Your task to perform on an android device: change the clock display to show seconds Image 0: 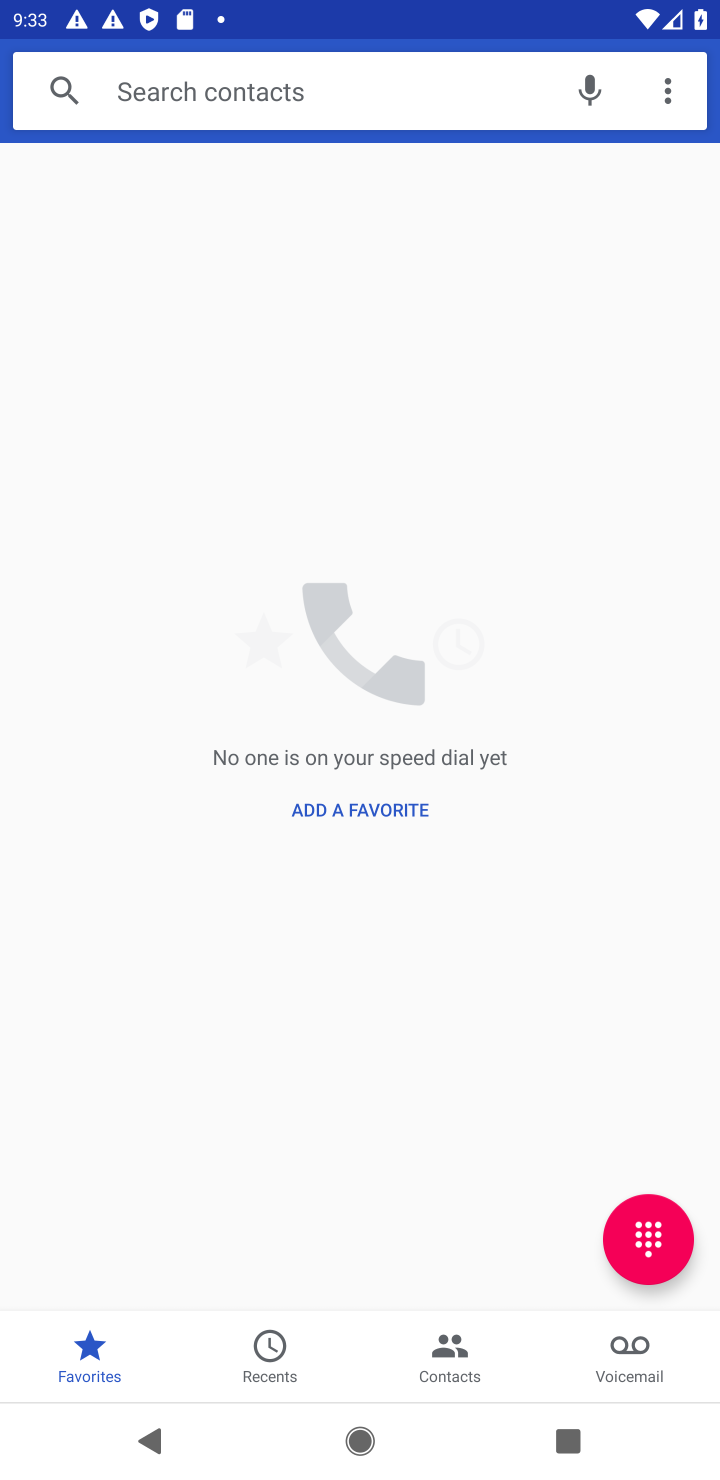
Step 0: press home button
Your task to perform on an android device: change the clock display to show seconds Image 1: 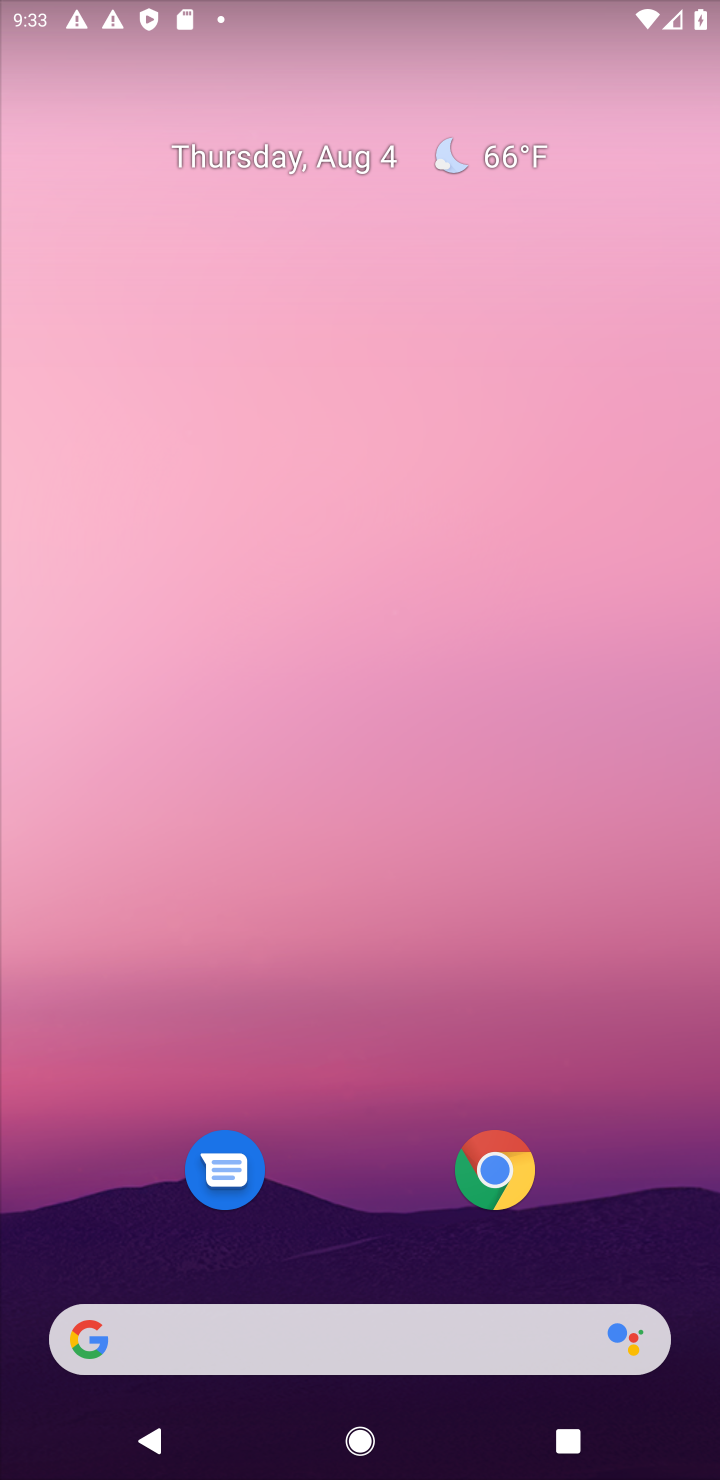
Step 1: drag from (267, 1233) to (243, 206)
Your task to perform on an android device: change the clock display to show seconds Image 2: 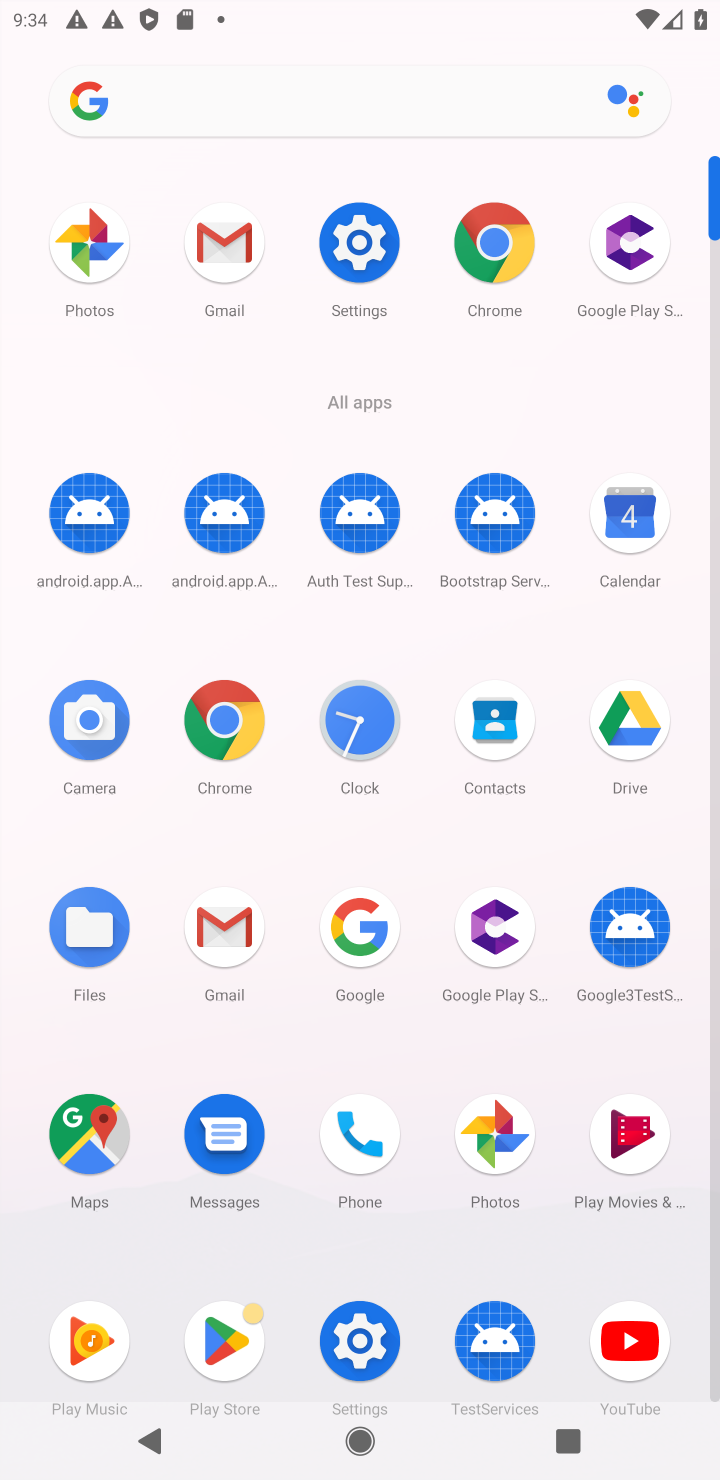
Step 2: click (334, 257)
Your task to perform on an android device: change the clock display to show seconds Image 3: 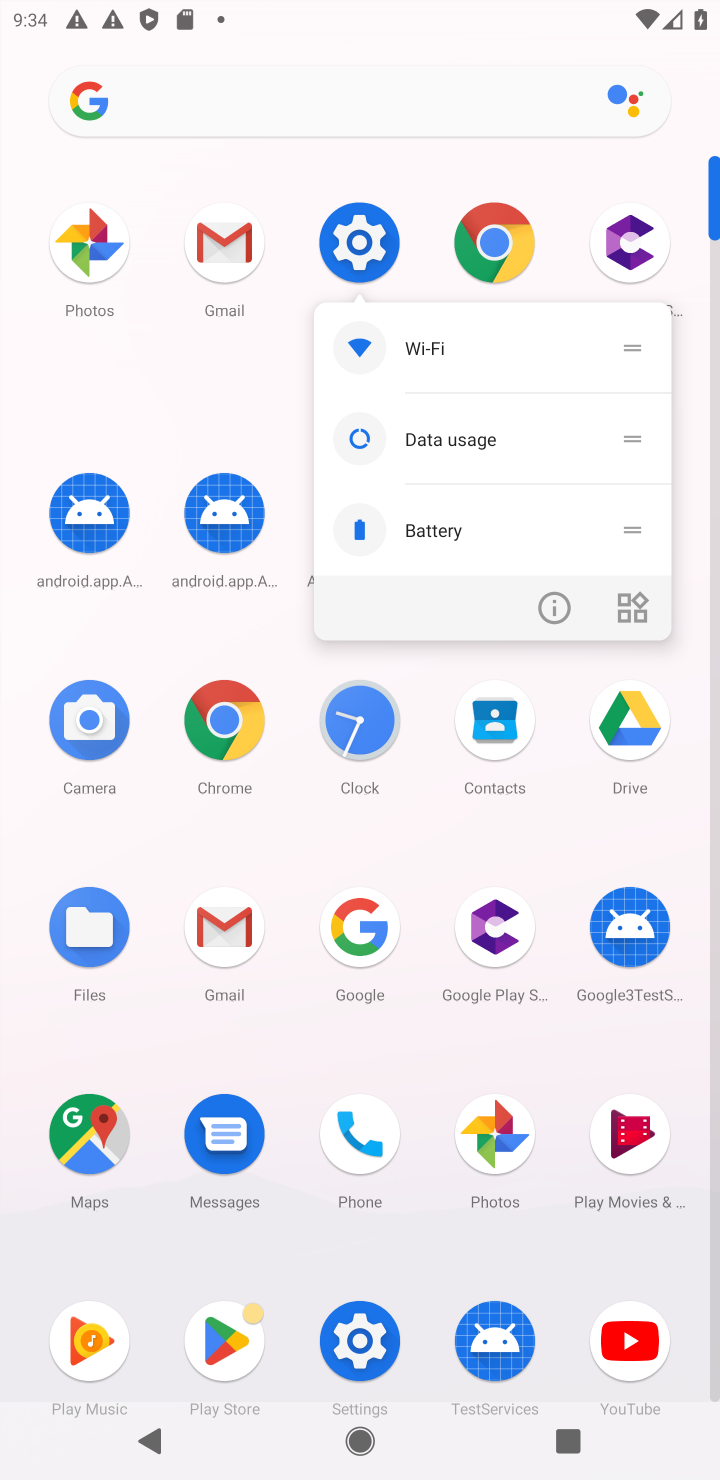
Step 3: click (332, 252)
Your task to perform on an android device: change the clock display to show seconds Image 4: 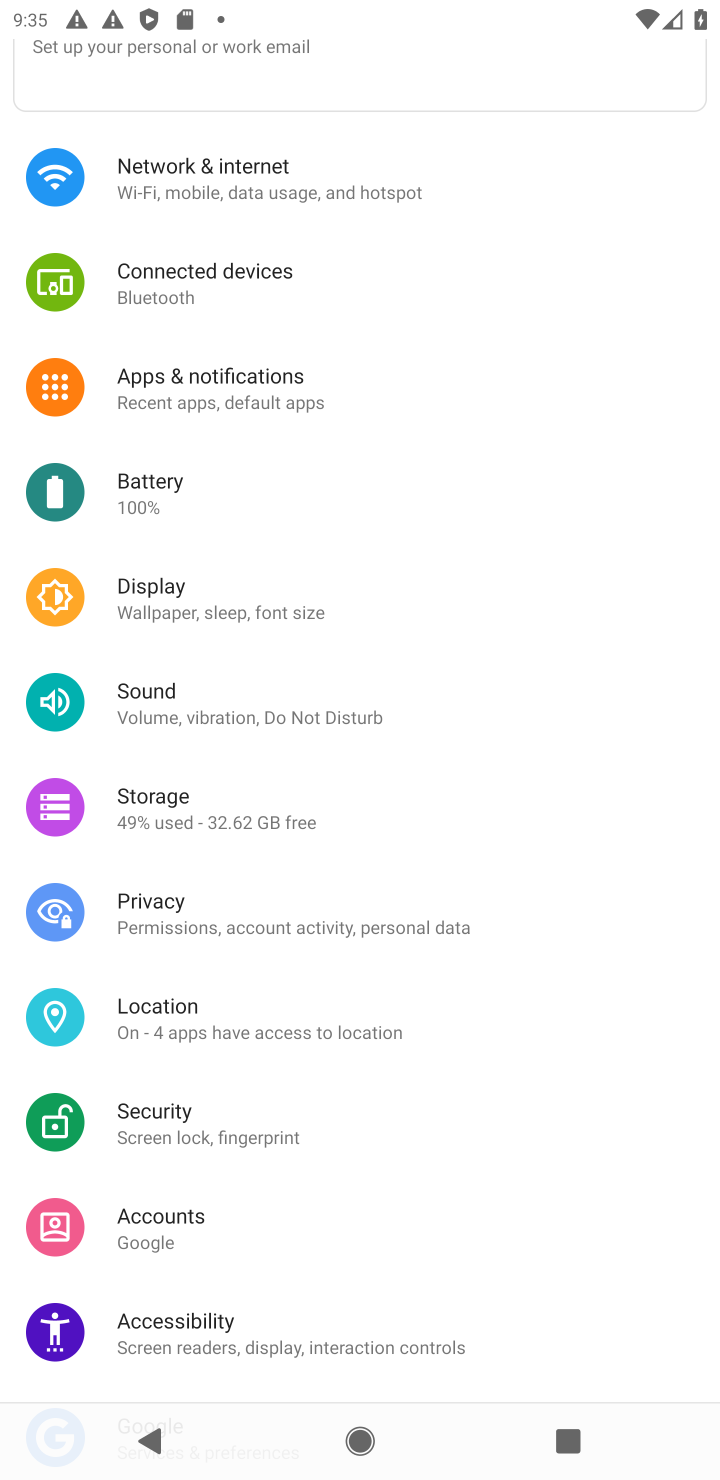
Step 4: press home button
Your task to perform on an android device: change the clock display to show seconds Image 5: 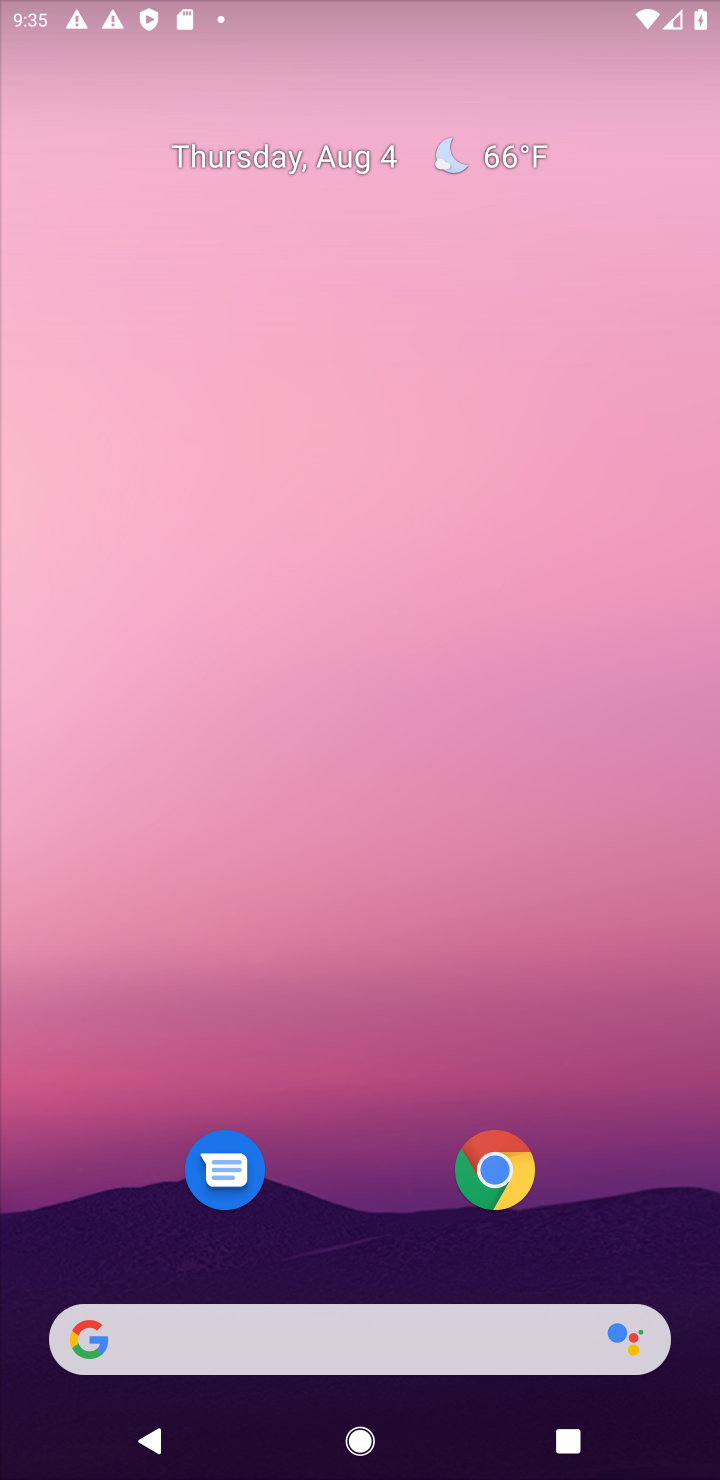
Step 5: drag from (408, 1156) to (499, 0)
Your task to perform on an android device: change the clock display to show seconds Image 6: 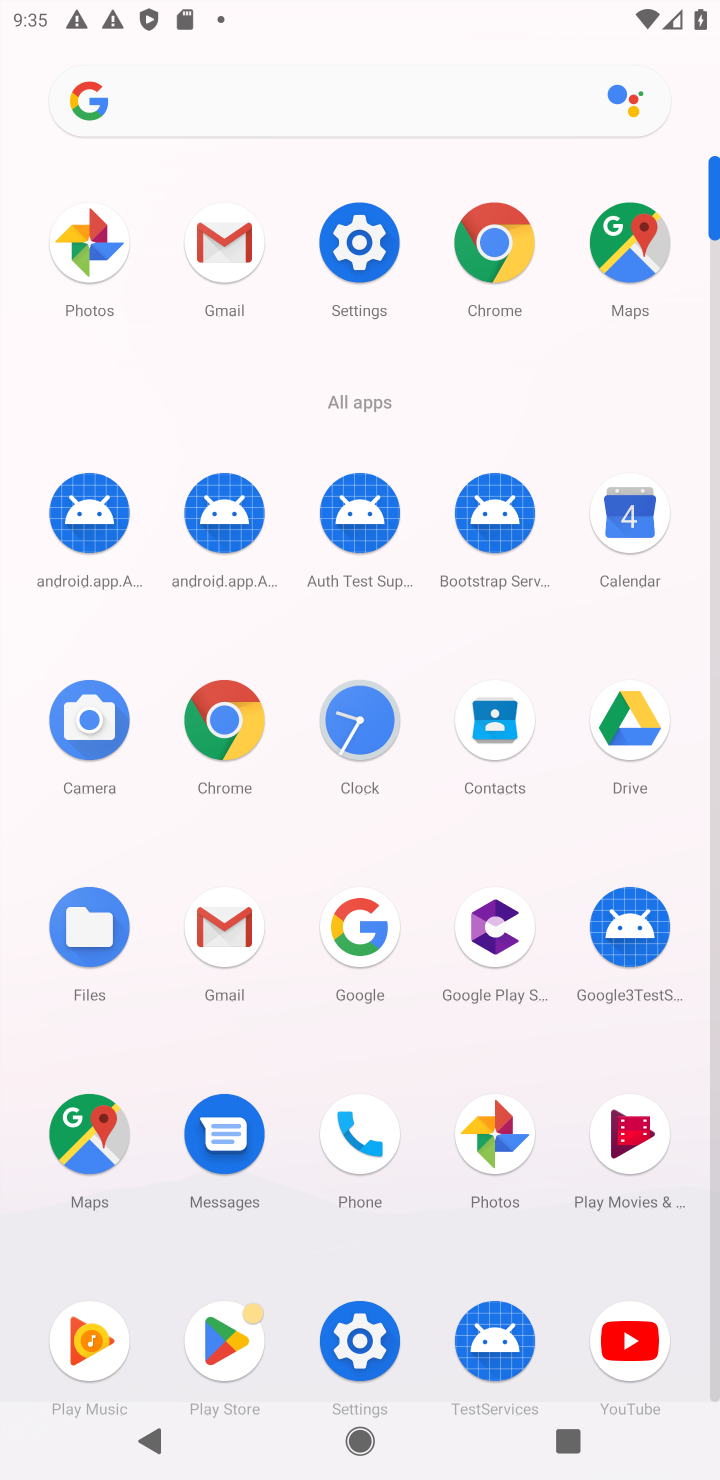
Step 6: click (356, 728)
Your task to perform on an android device: change the clock display to show seconds Image 7: 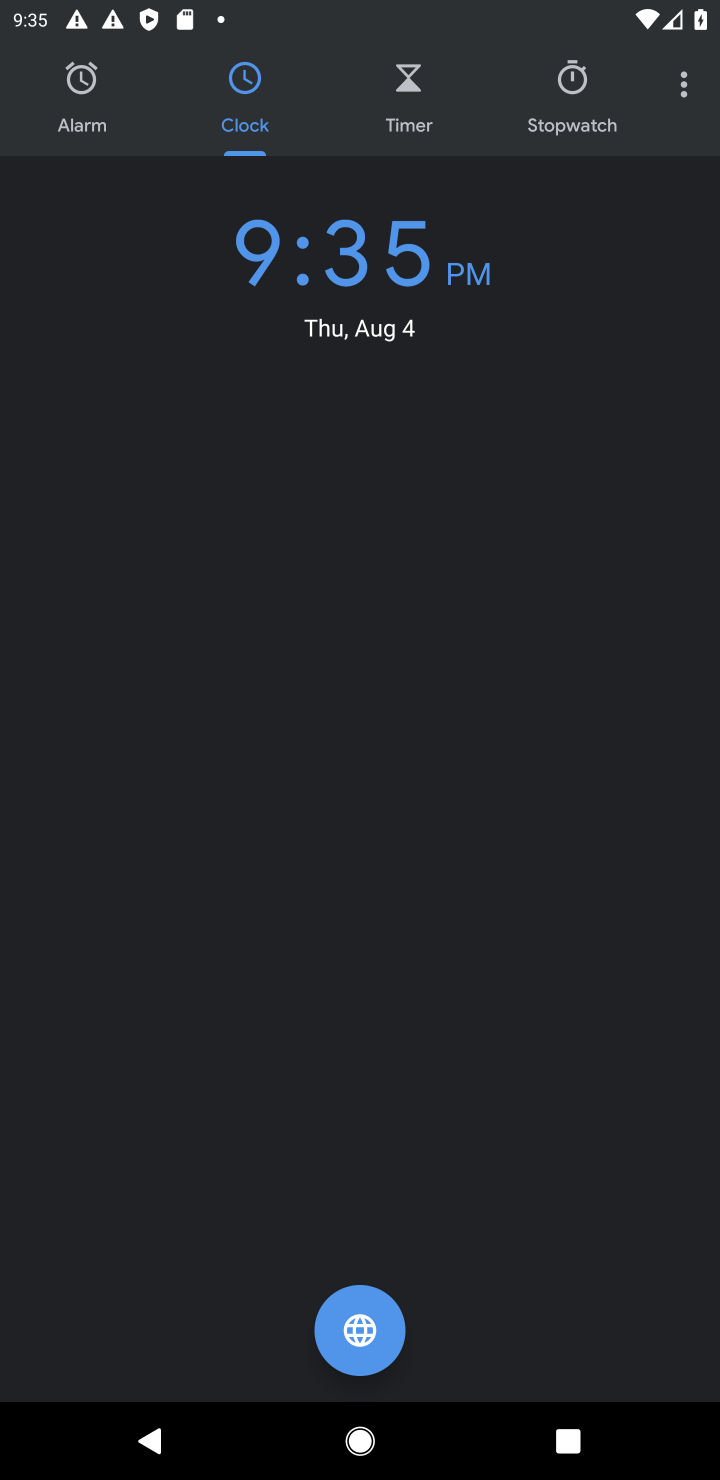
Step 7: click (679, 93)
Your task to perform on an android device: change the clock display to show seconds Image 8: 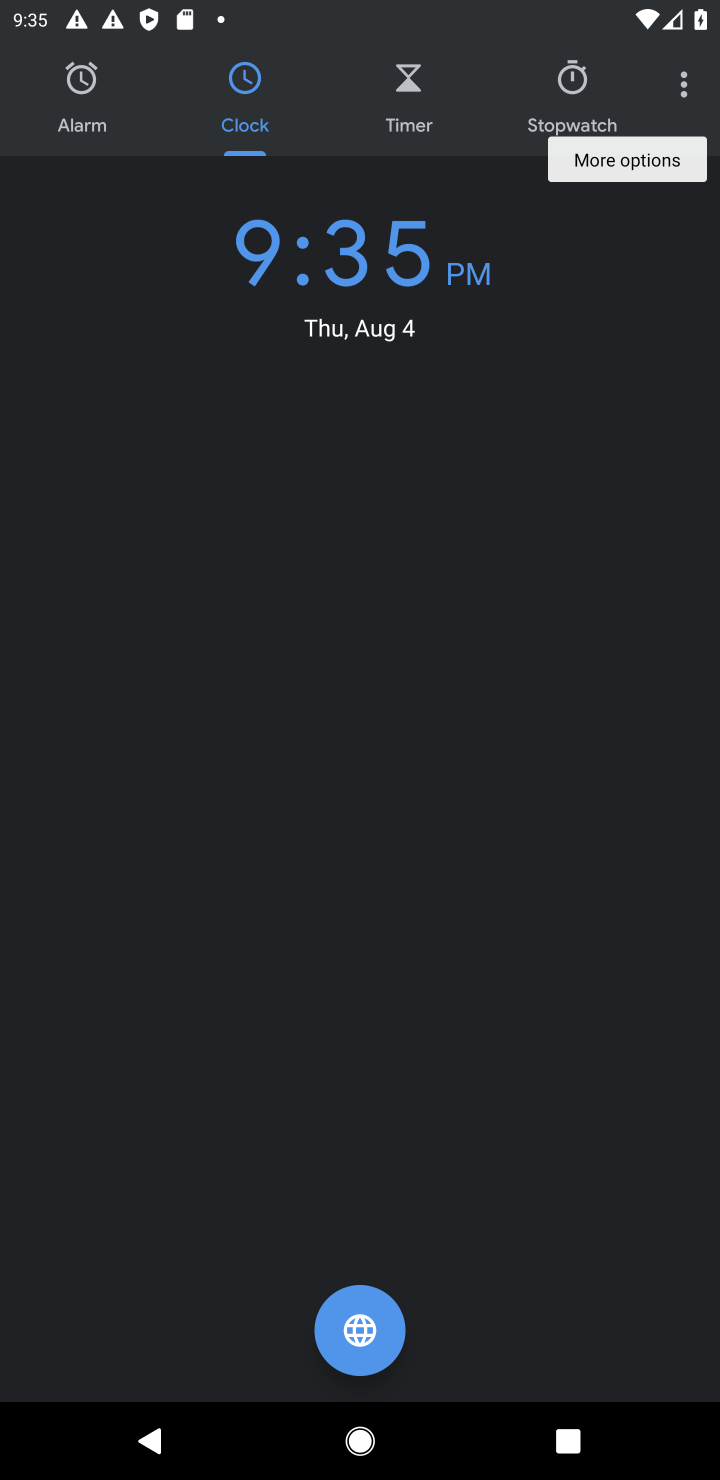
Step 8: click (688, 103)
Your task to perform on an android device: change the clock display to show seconds Image 9: 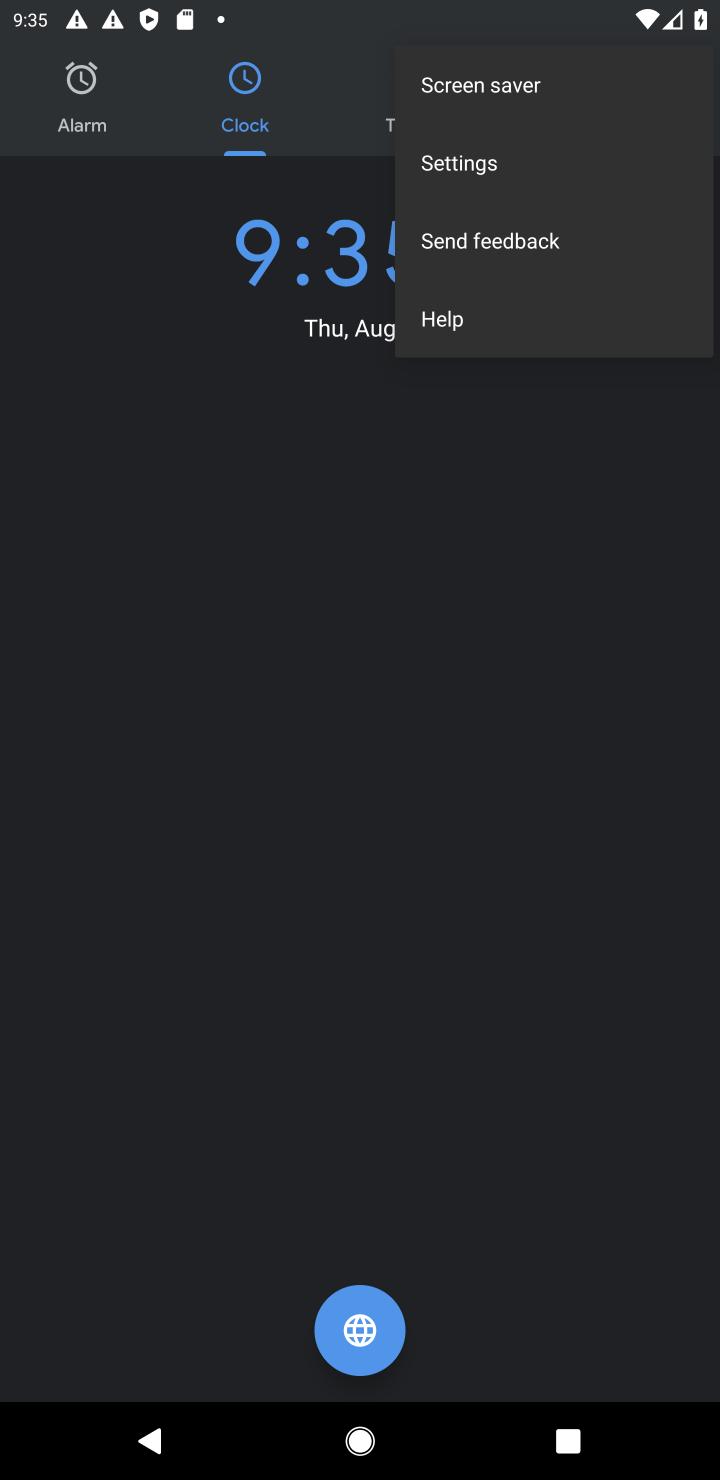
Step 9: click (495, 174)
Your task to perform on an android device: change the clock display to show seconds Image 10: 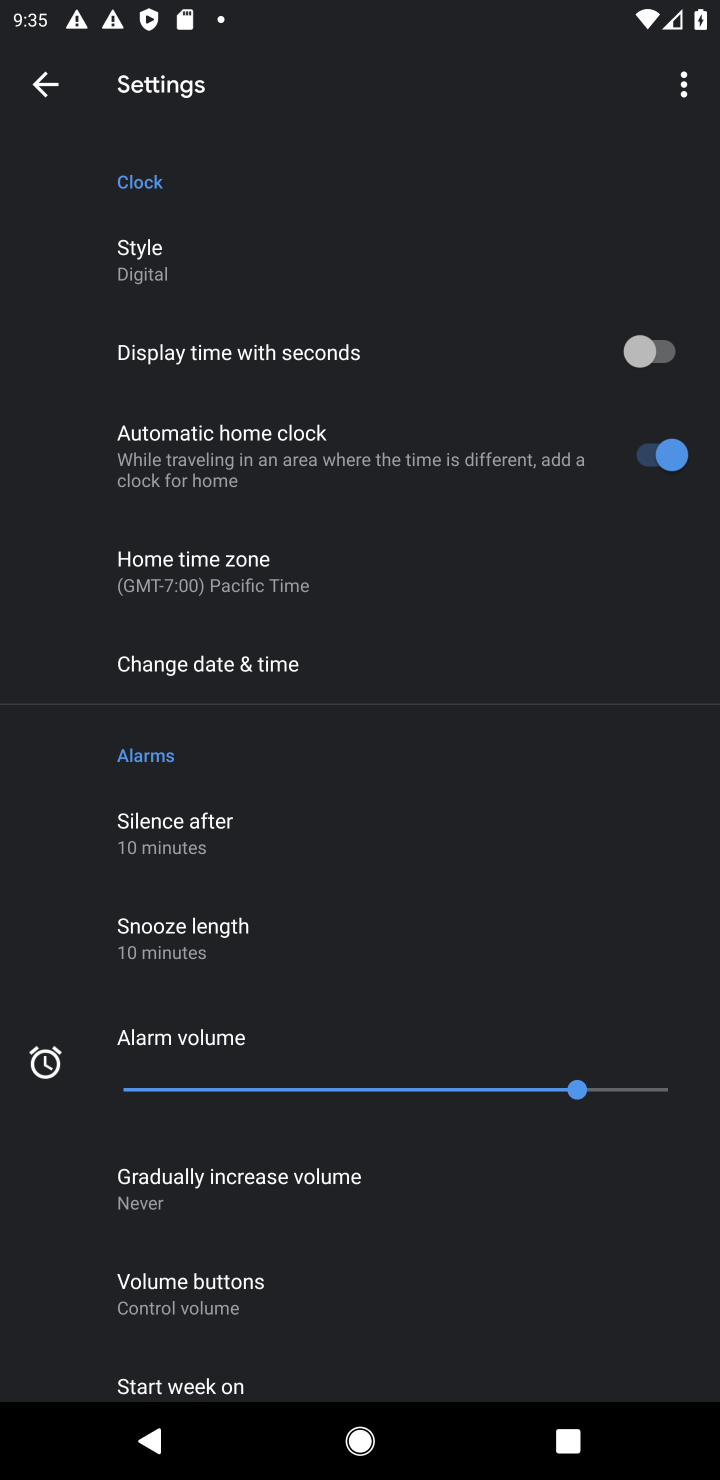
Step 10: click (704, 386)
Your task to perform on an android device: change the clock display to show seconds Image 11: 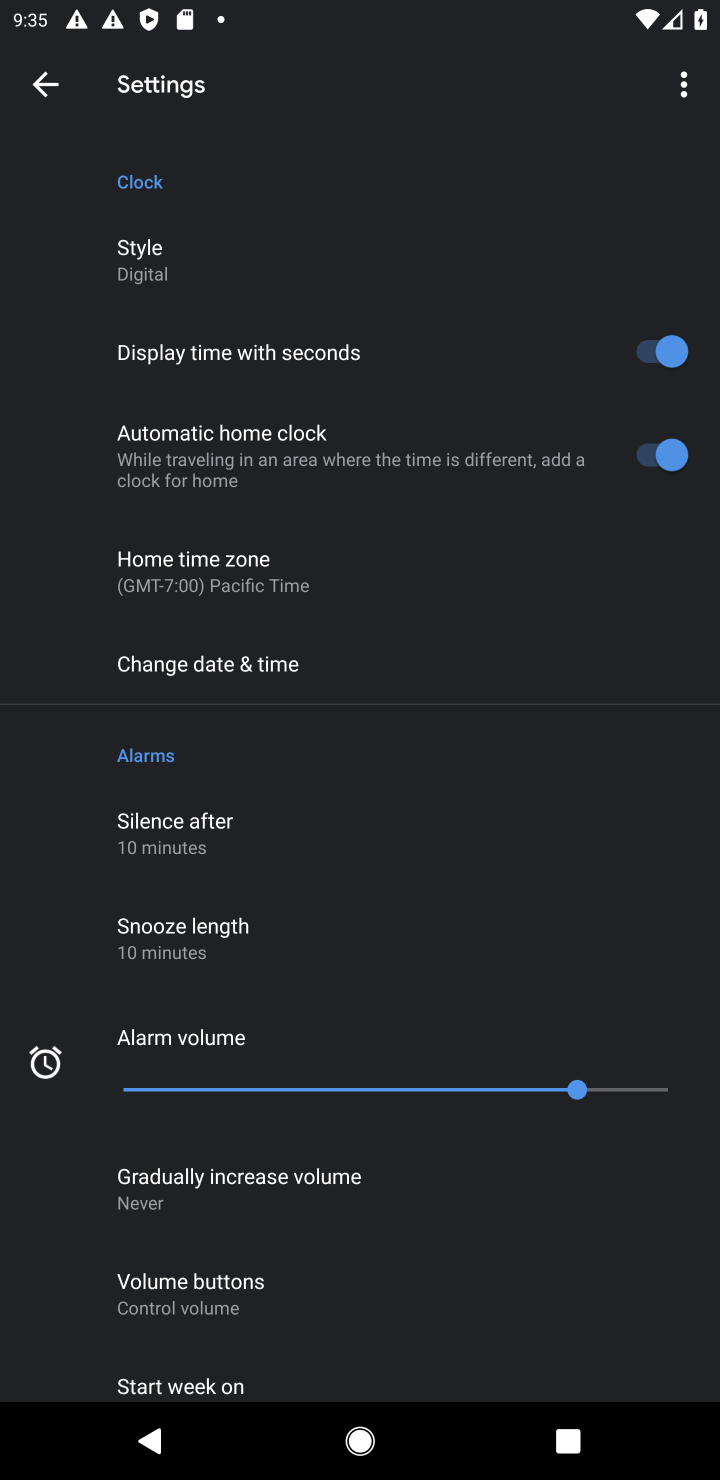
Step 11: task complete